Your task to perform on an android device: Go to sound settings Image 0: 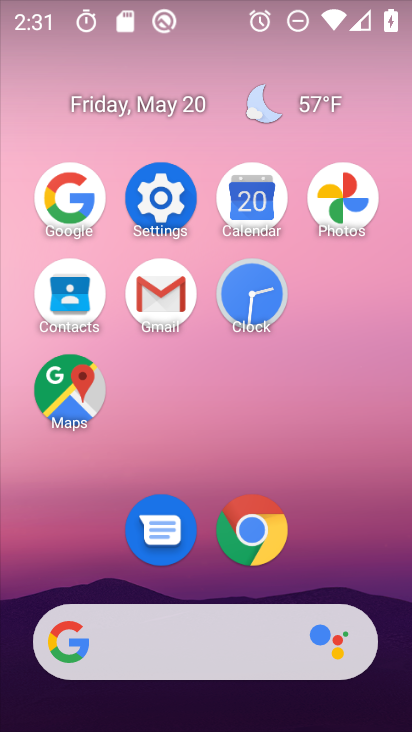
Step 0: click (139, 193)
Your task to perform on an android device: Go to sound settings Image 1: 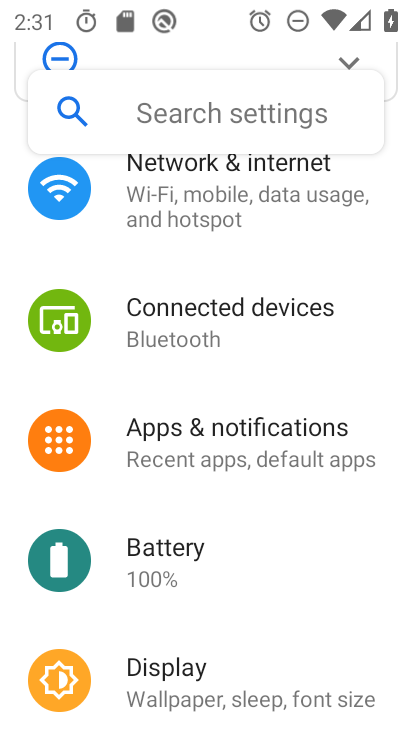
Step 1: drag from (228, 598) to (271, 212)
Your task to perform on an android device: Go to sound settings Image 2: 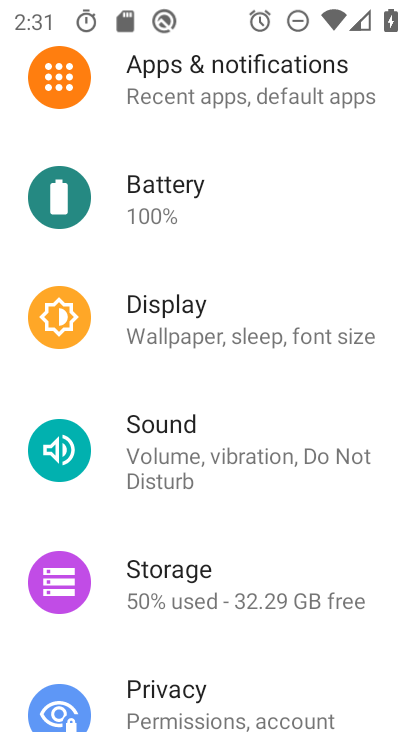
Step 2: click (207, 431)
Your task to perform on an android device: Go to sound settings Image 3: 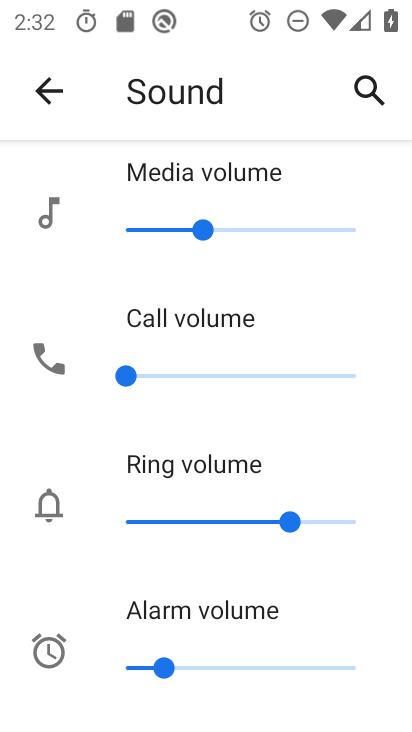
Step 3: task complete